Your task to perform on an android device: Play the last video I watched on Youtube Image 0: 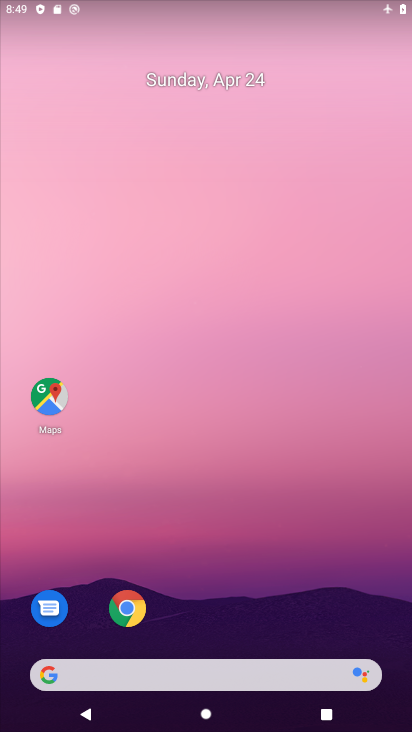
Step 0: drag from (204, 625) to (158, 98)
Your task to perform on an android device: Play the last video I watched on Youtube Image 1: 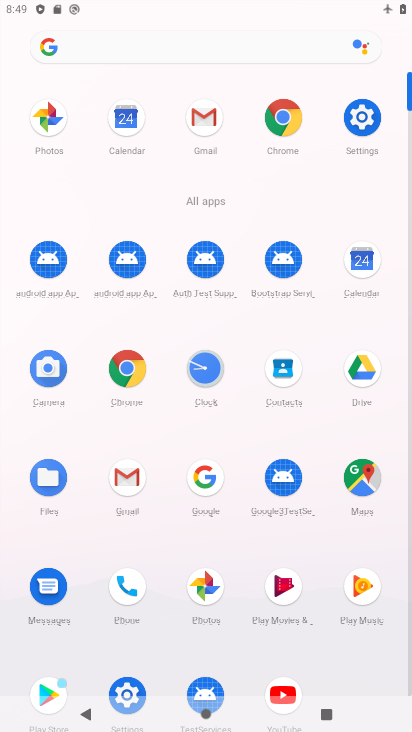
Step 1: drag from (241, 547) to (236, 258)
Your task to perform on an android device: Play the last video I watched on Youtube Image 2: 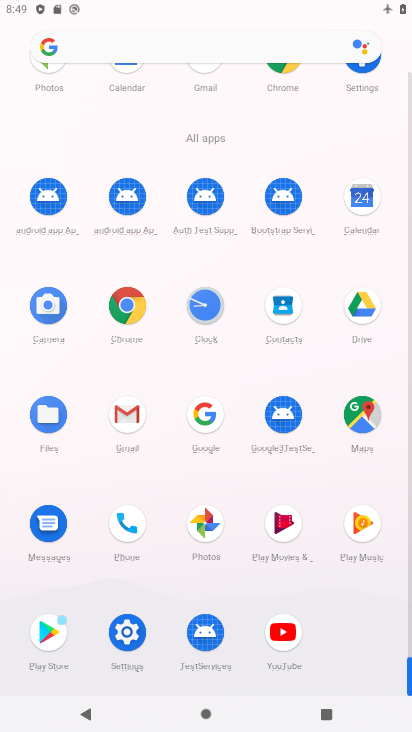
Step 2: click (289, 638)
Your task to perform on an android device: Play the last video I watched on Youtube Image 3: 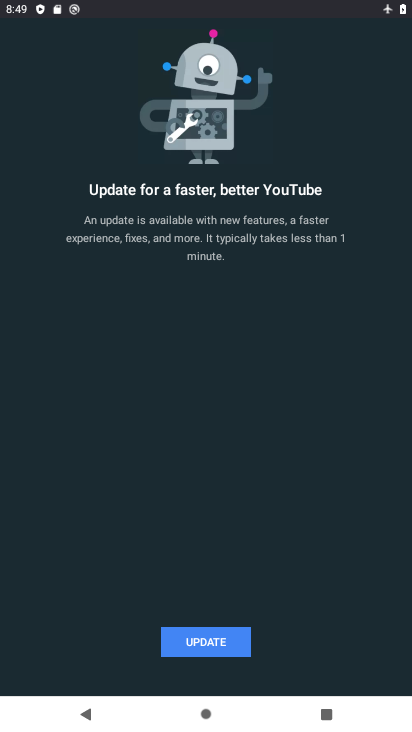
Step 3: click (183, 648)
Your task to perform on an android device: Play the last video I watched on Youtube Image 4: 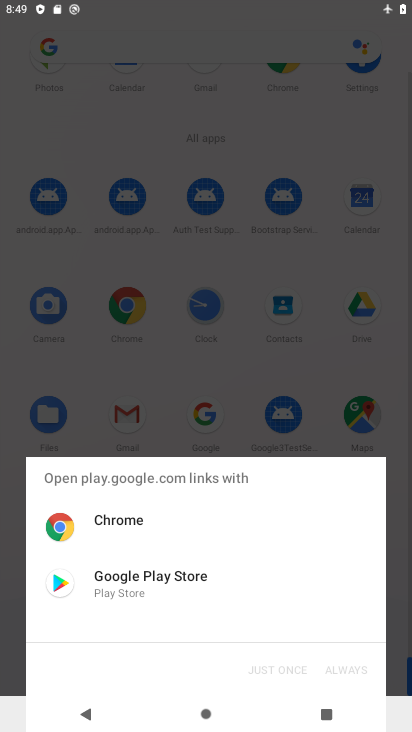
Step 4: click (183, 576)
Your task to perform on an android device: Play the last video I watched on Youtube Image 5: 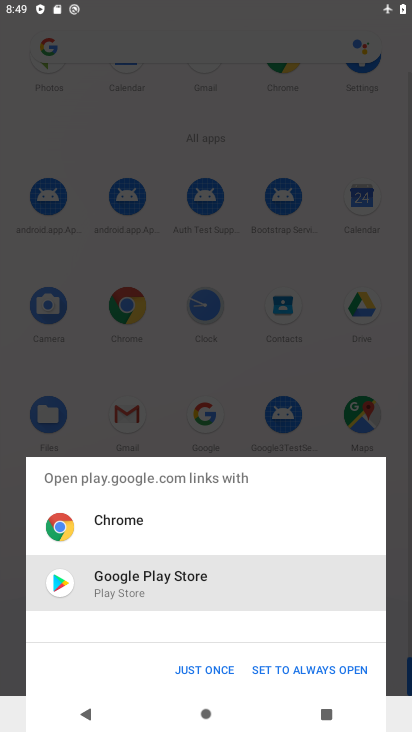
Step 5: click (207, 672)
Your task to perform on an android device: Play the last video I watched on Youtube Image 6: 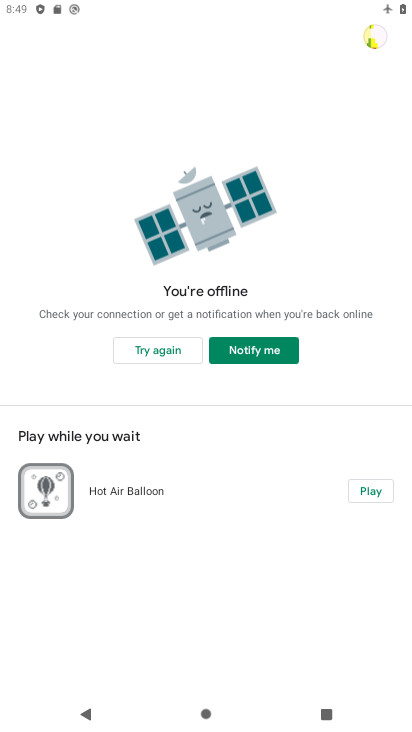
Step 6: press back button
Your task to perform on an android device: Play the last video I watched on Youtube Image 7: 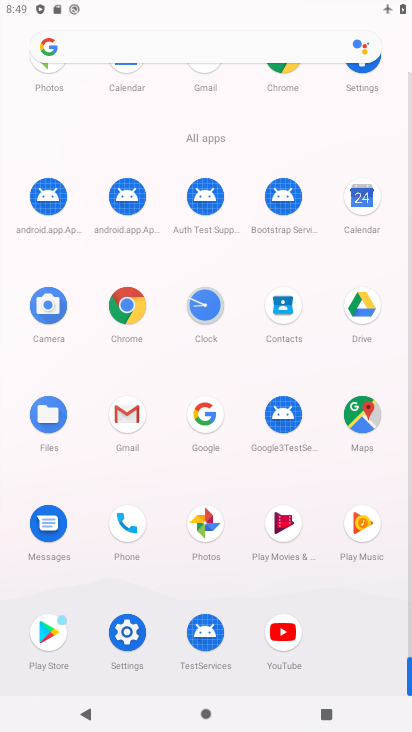
Step 7: click (277, 633)
Your task to perform on an android device: Play the last video I watched on Youtube Image 8: 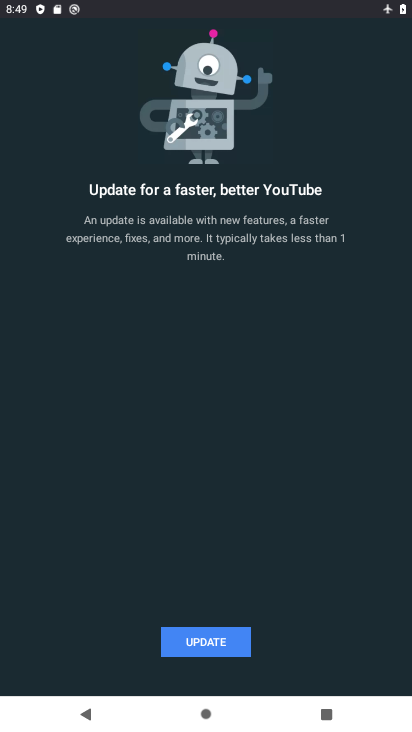
Step 8: click (169, 646)
Your task to perform on an android device: Play the last video I watched on Youtube Image 9: 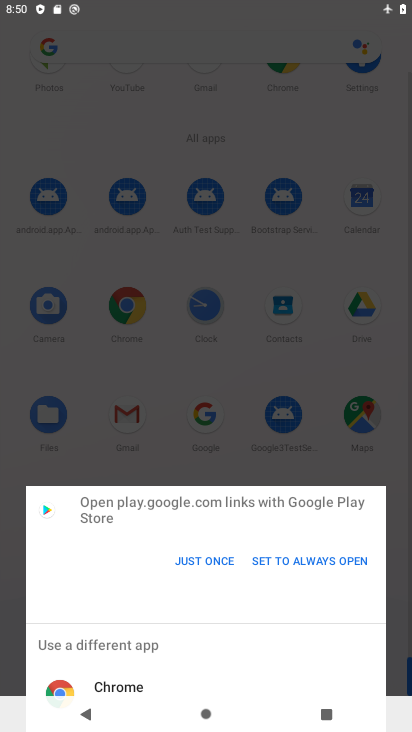
Step 9: click (218, 554)
Your task to perform on an android device: Play the last video I watched on Youtube Image 10: 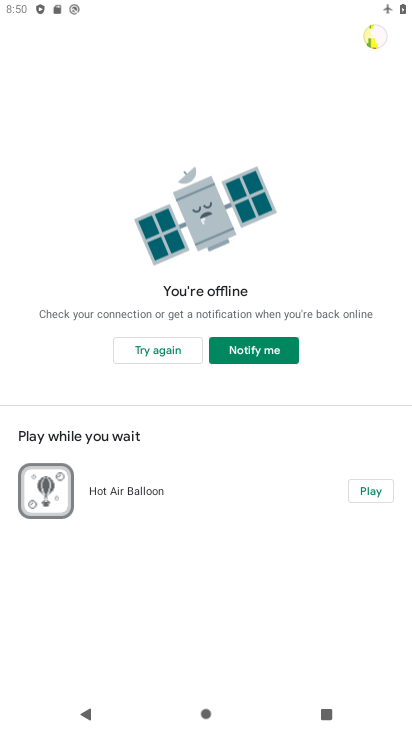
Step 10: task complete